Your task to perform on an android device: add a contact in the contacts app Image 0: 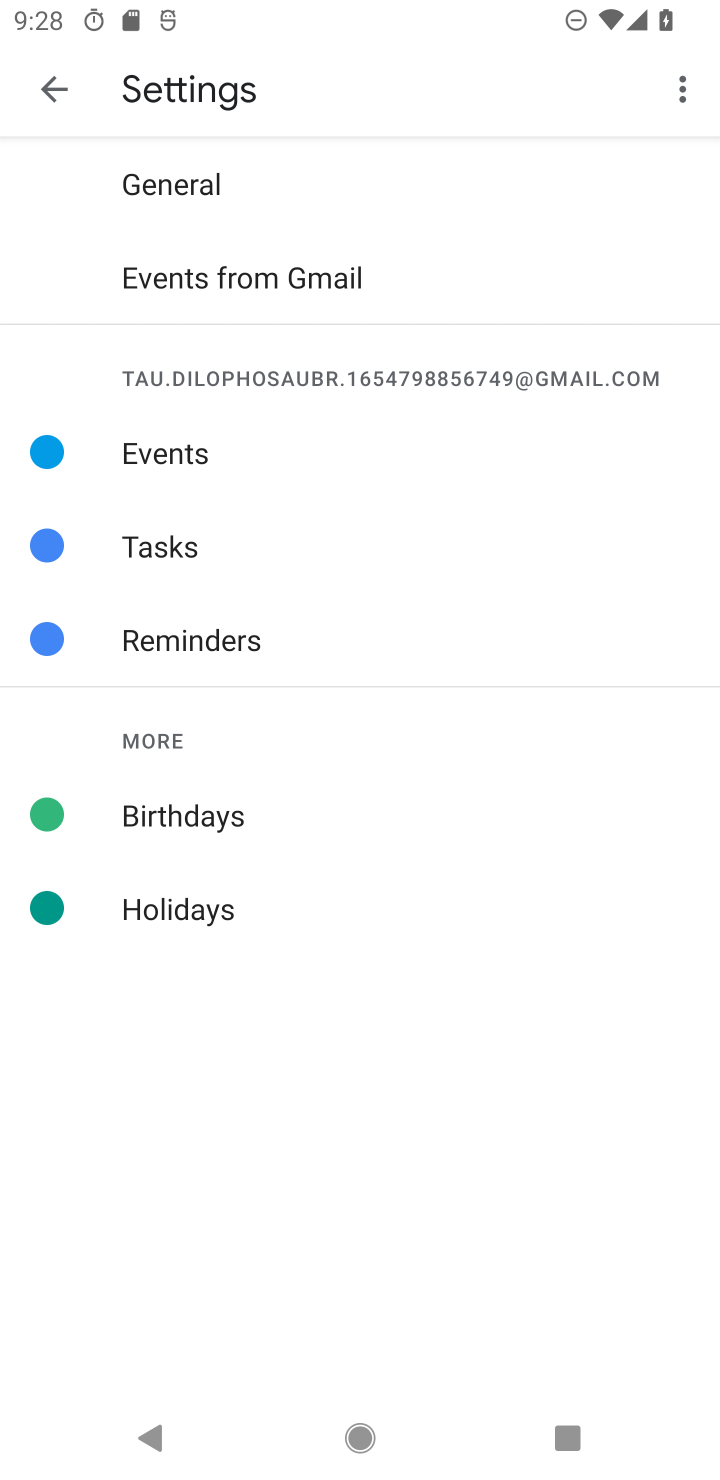
Step 0: press home button
Your task to perform on an android device: add a contact in the contacts app Image 1: 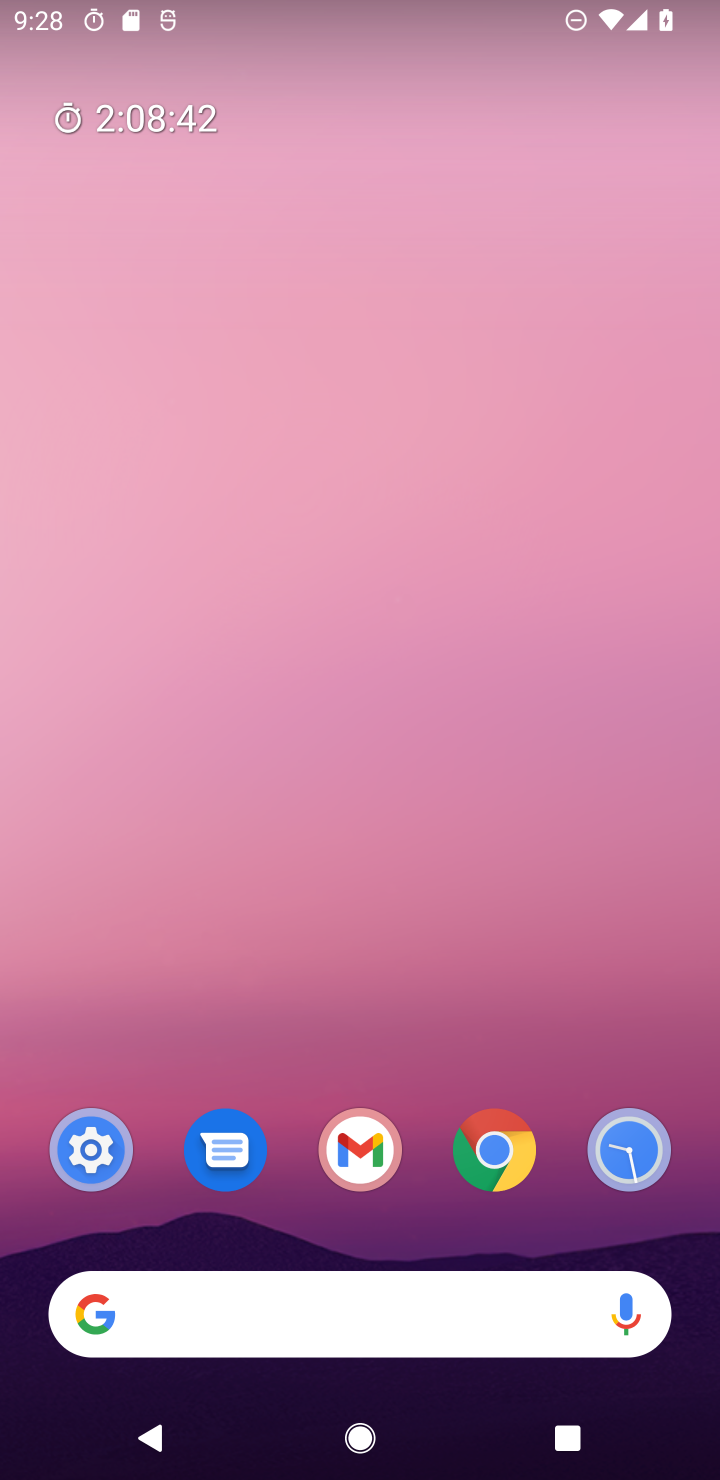
Step 1: drag from (390, 1060) to (604, 183)
Your task to perform on an android device: add a contact in the contacts app Image 2: 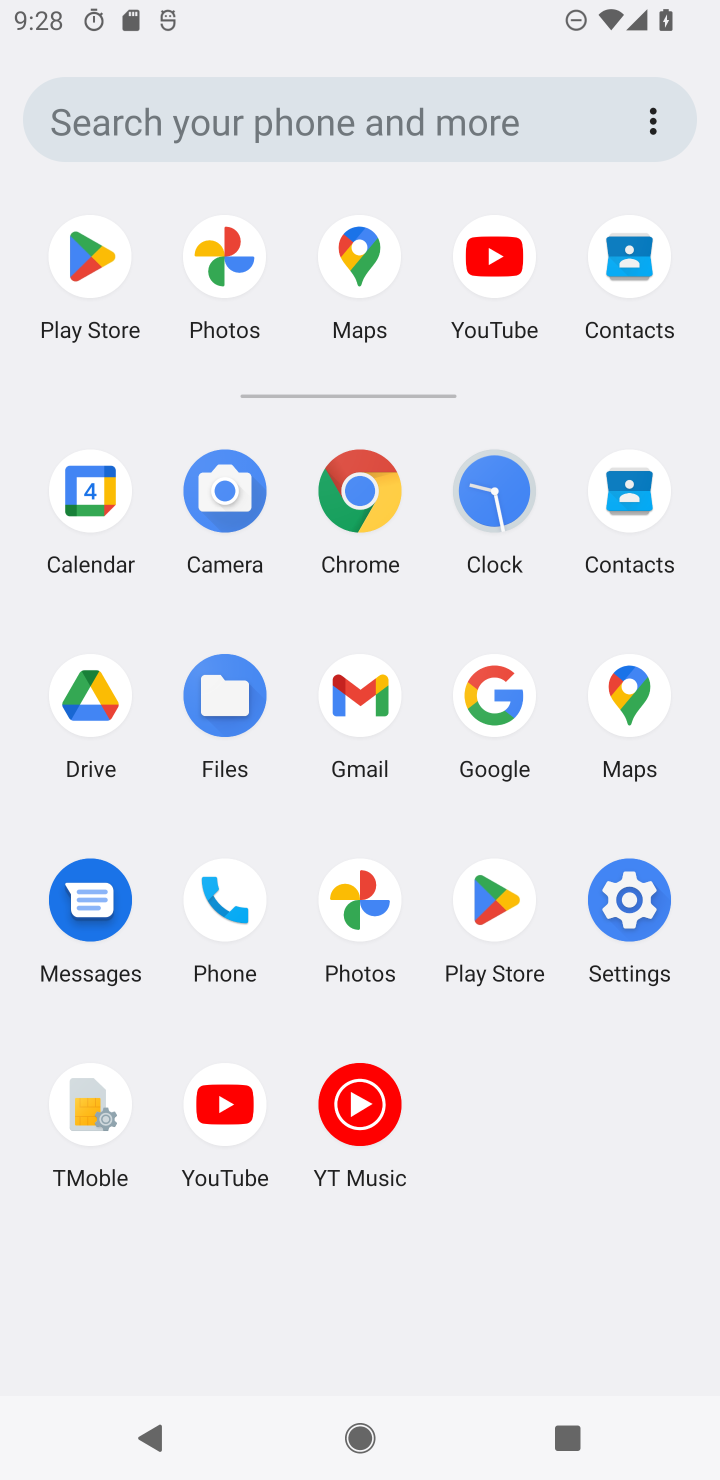
Step 2: click (642, 494)
Your task to perform on an android device: add a contact in the contacts app Image 3: 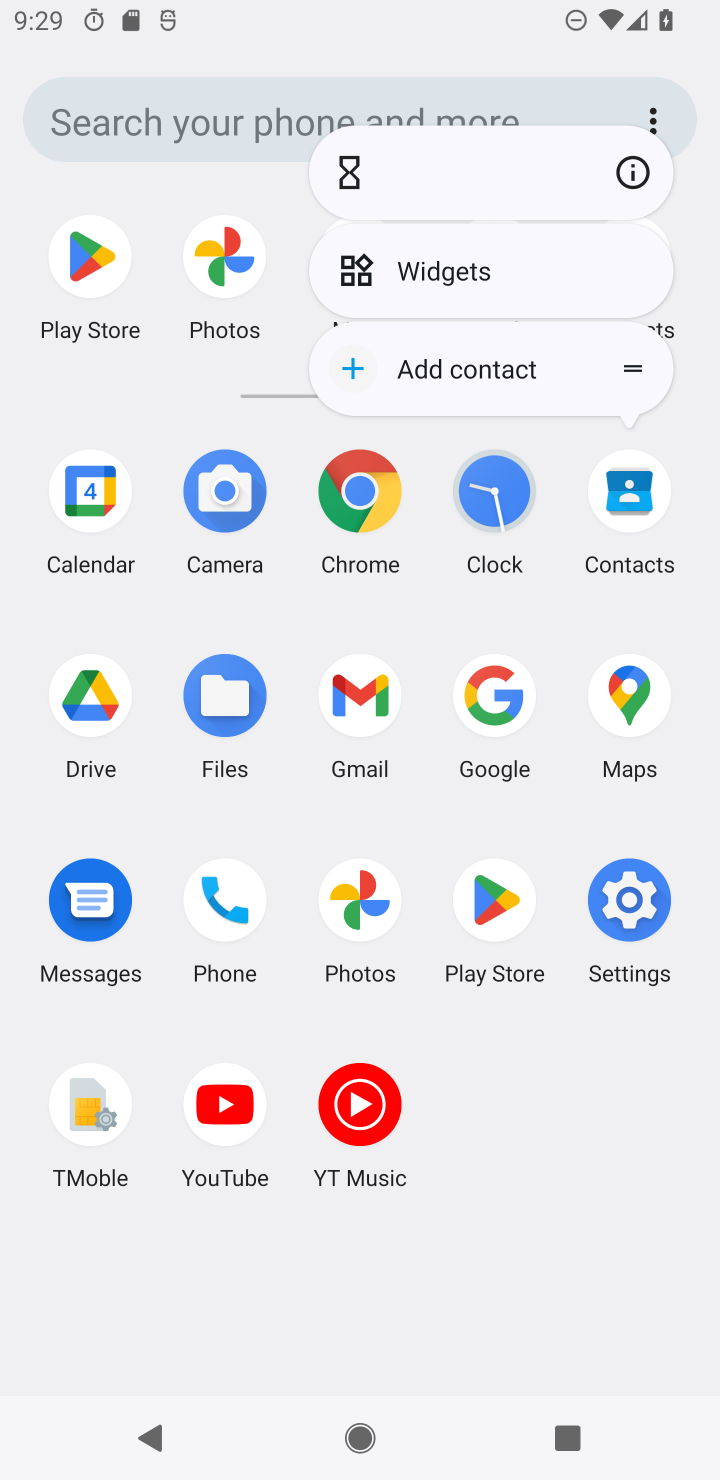
Step 3: click (644, 485)
Your task to perform on an android device: add a contact in the contacts app Image 4: 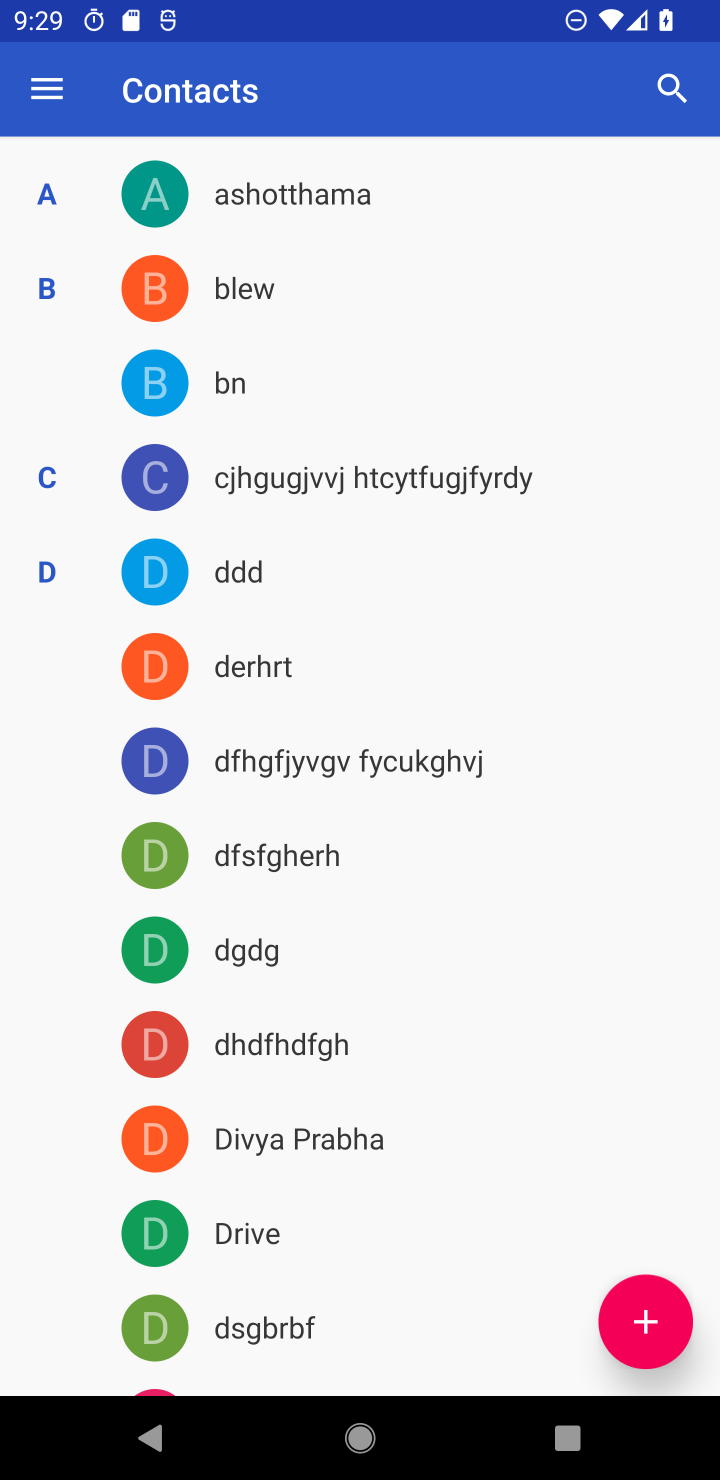
Step 4: click (655, 1296)
Your task to perform on an android device: add a contact in the contacts app Image 5: 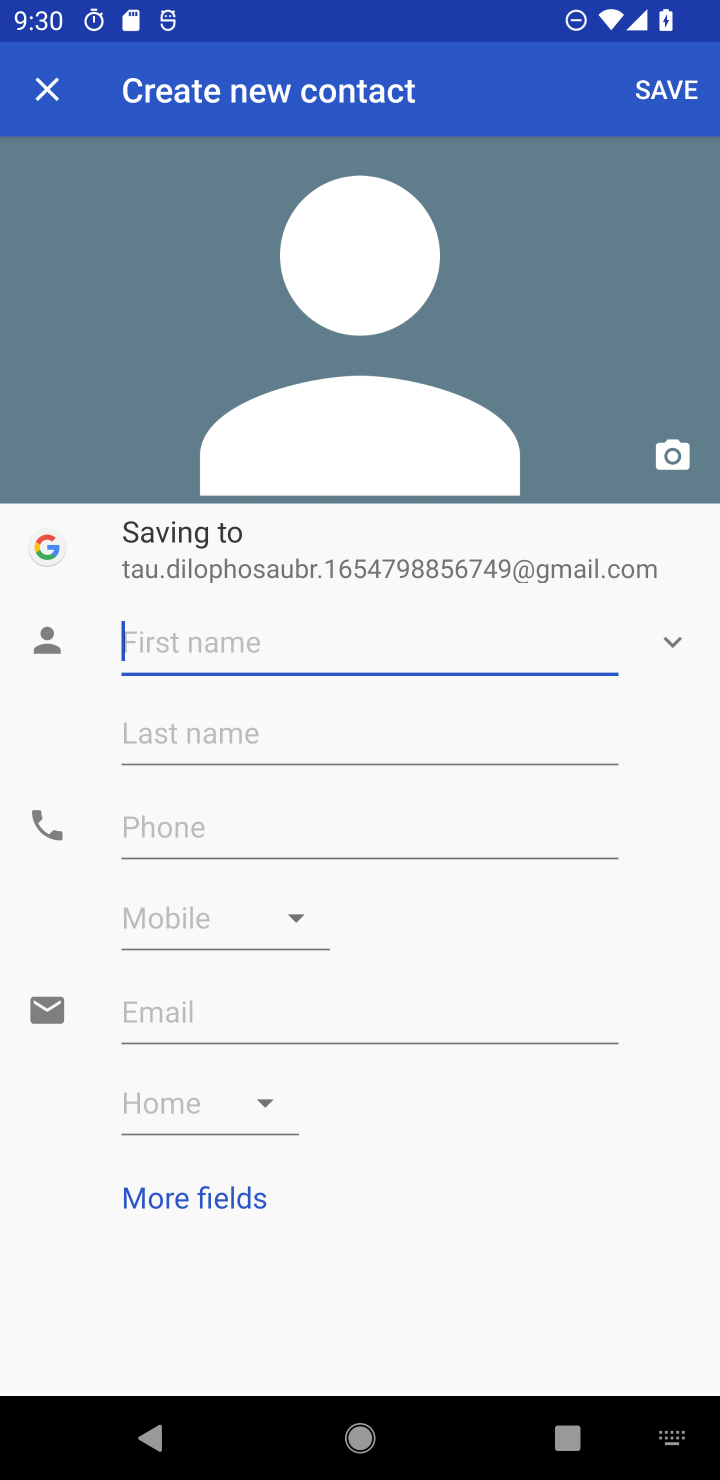
Step 5: type "gjhgk"
Your task to perform on an android device: add a contact in the contacts app Image 6: 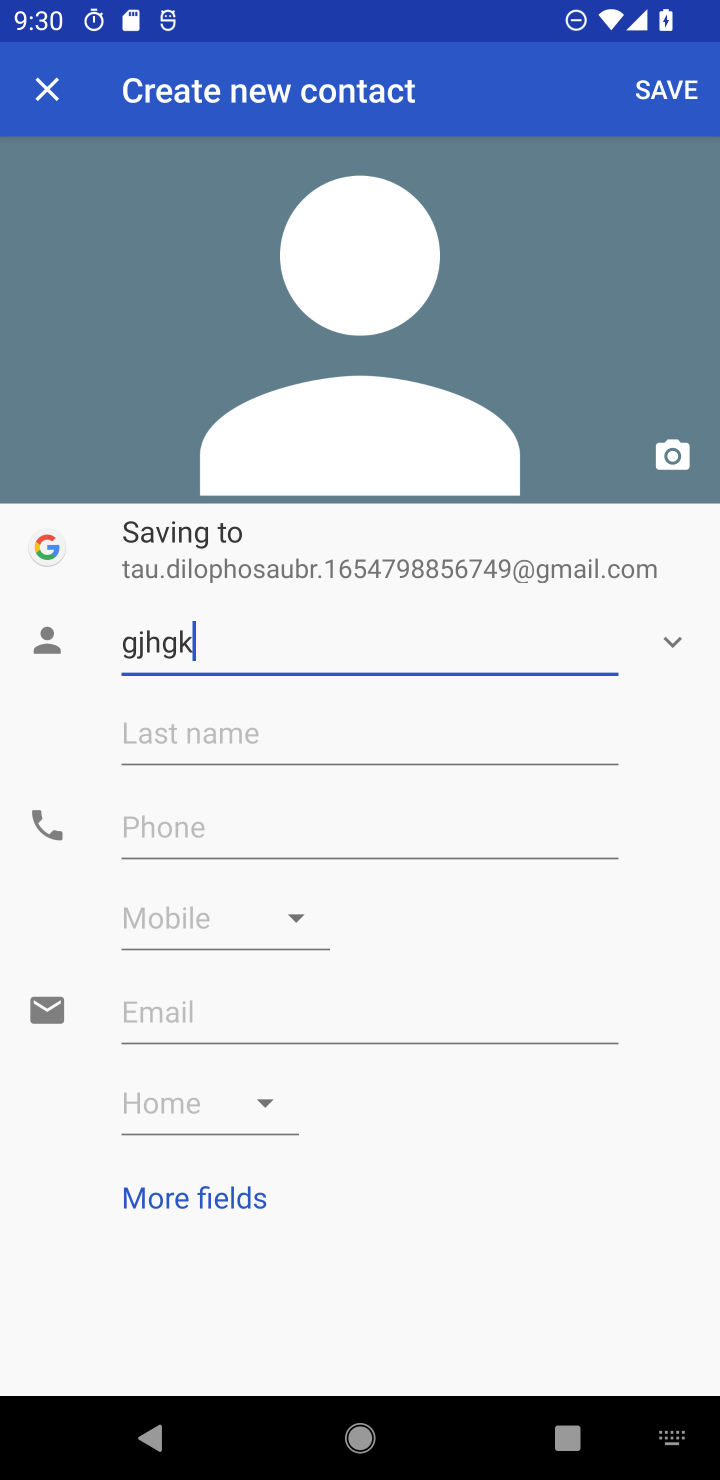
Step 6: click (392, 825)
Your task to perform on an android device: add a contact in the contacts app Image 7: 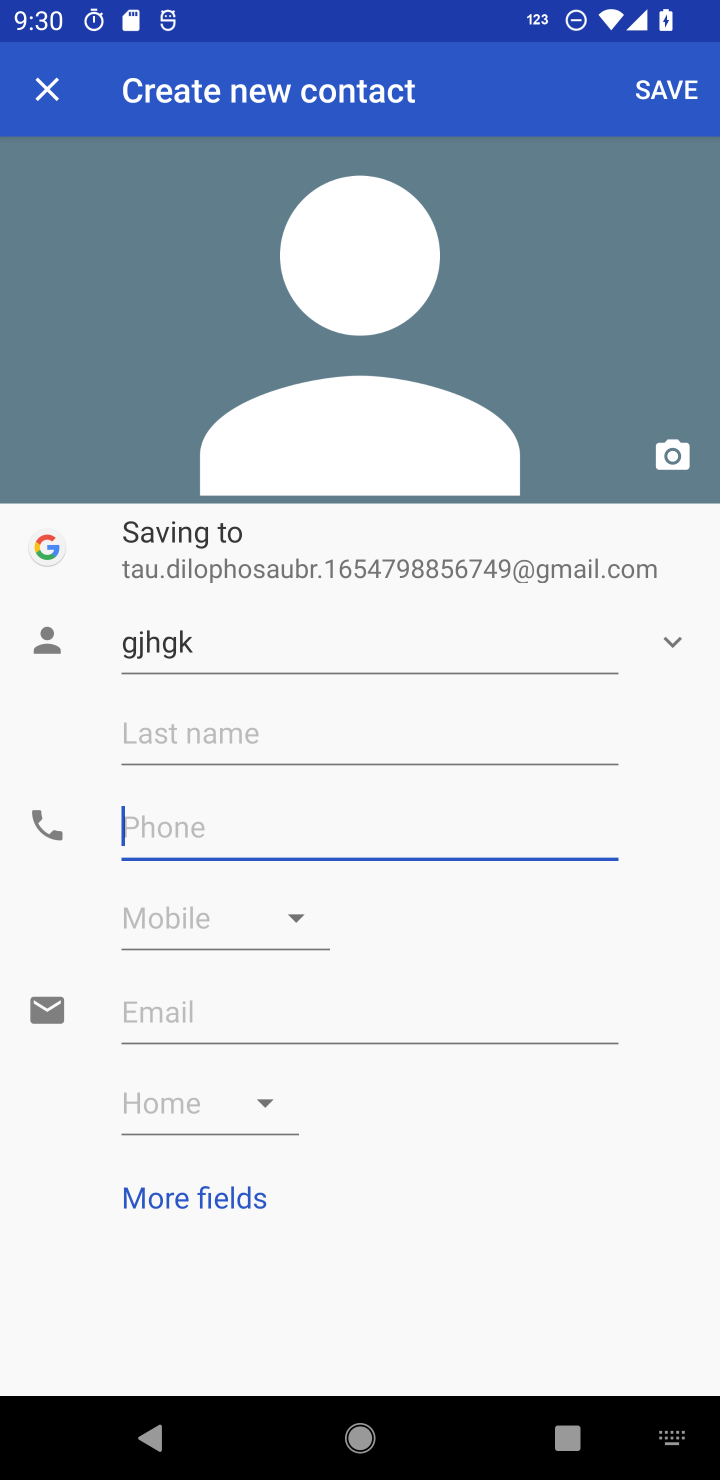
Step 7: type "9087678987"
Your task to perform on an android device: add a contact in the contacts app Image 8: 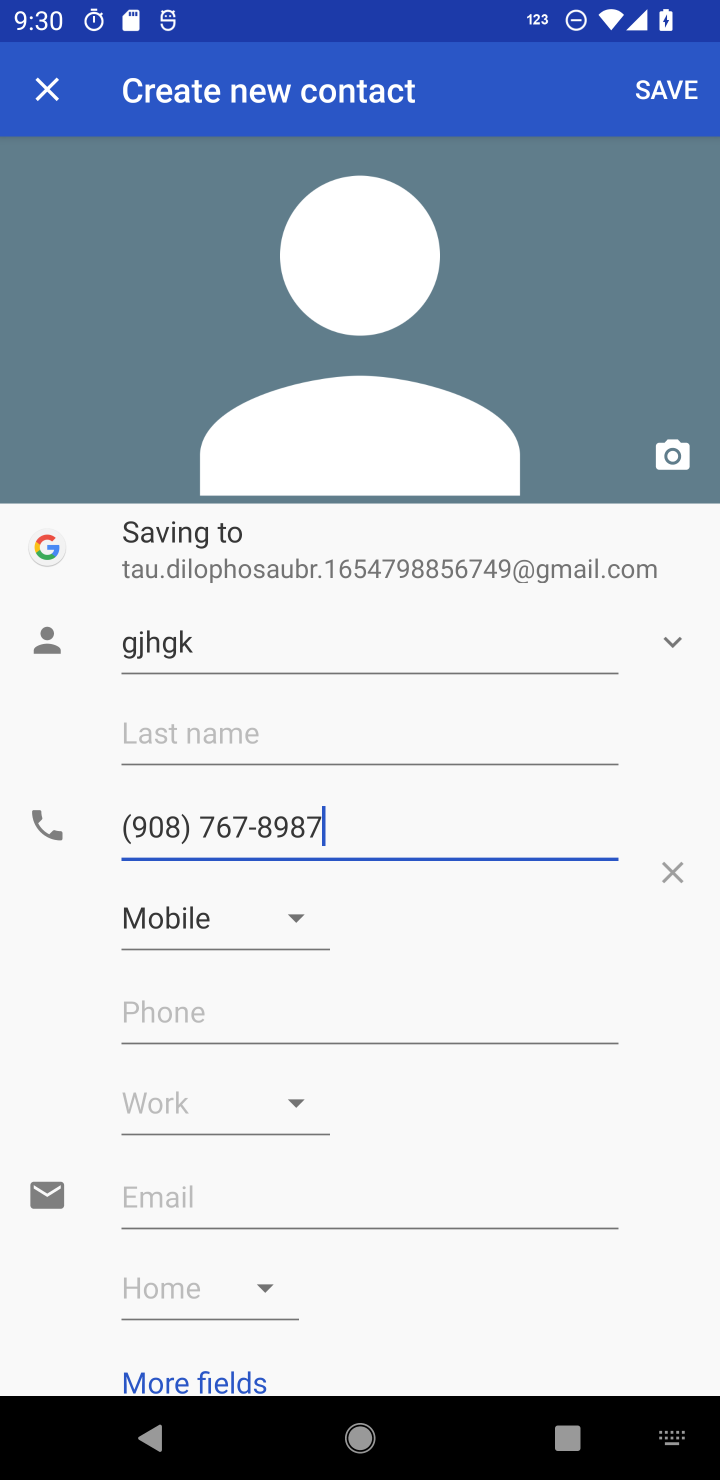
Step 8: click (652, 74)
Your task to perform on an android device: add a contact in the contacts app Image 9: 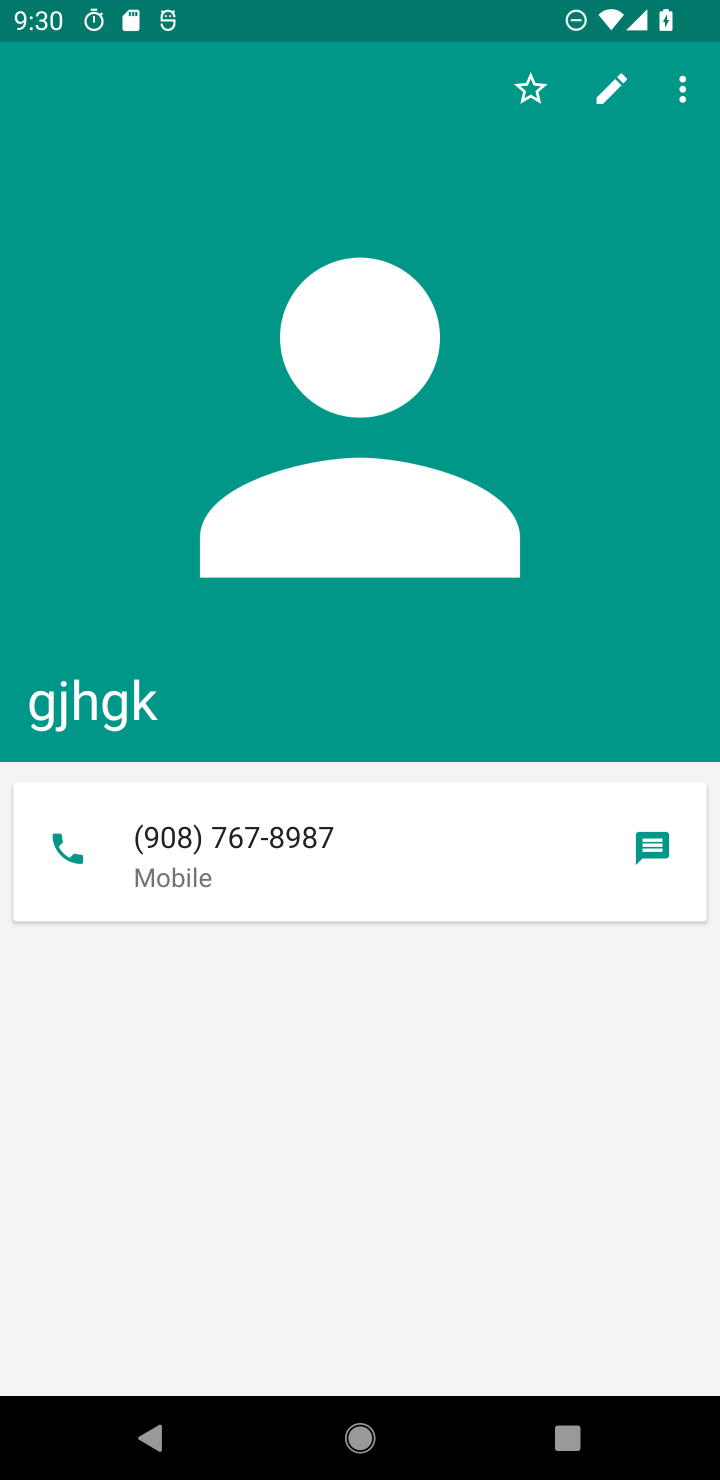
Step 9: task complete